Your task to perform on an android device: turn off sleep mode Image 0: 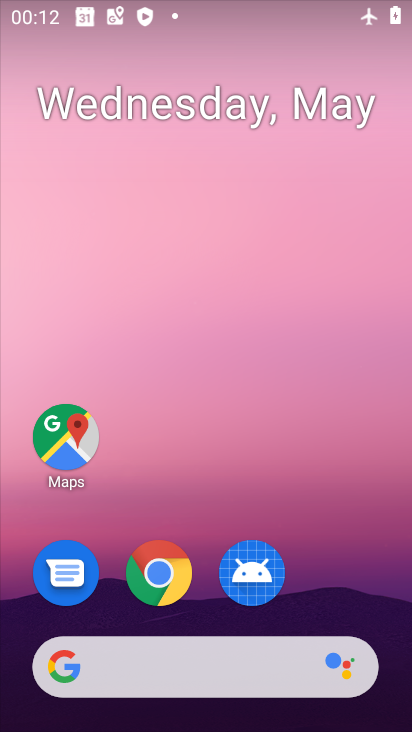
Step 0: drag from (286, 469) to (388, 390)
Your task to perform on an android device: turn off sleep mode Image 1: 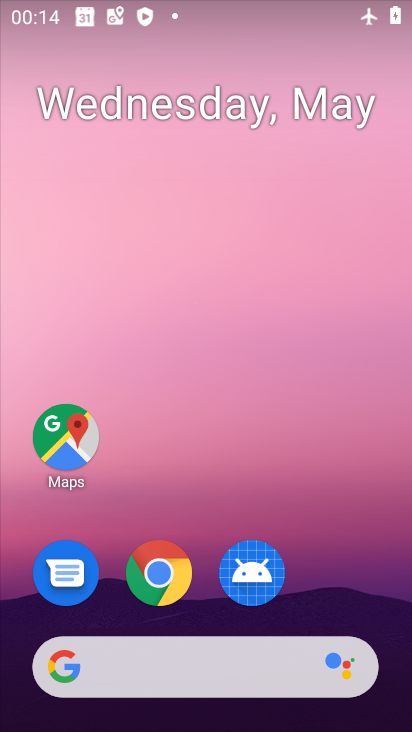
Step 1: task complete